Your task to perform on an android device: manage bookmarks in the chrome app Image 0: 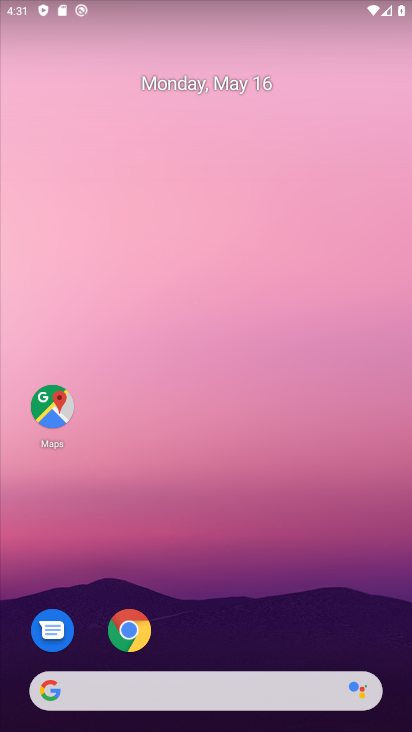
Step 0: press home button
Your task to perform on an android device: manage bookmarks in the chrome app Image 1: 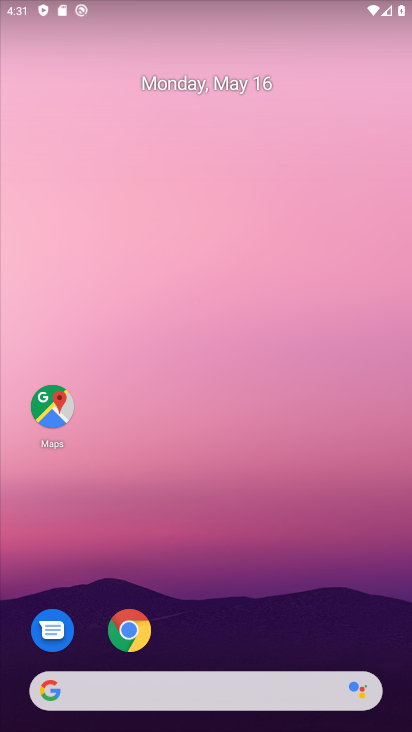
Step 1: click (111, 643)
Your task to perform on an android device: manage bookmarks in the chrome app Image 2: 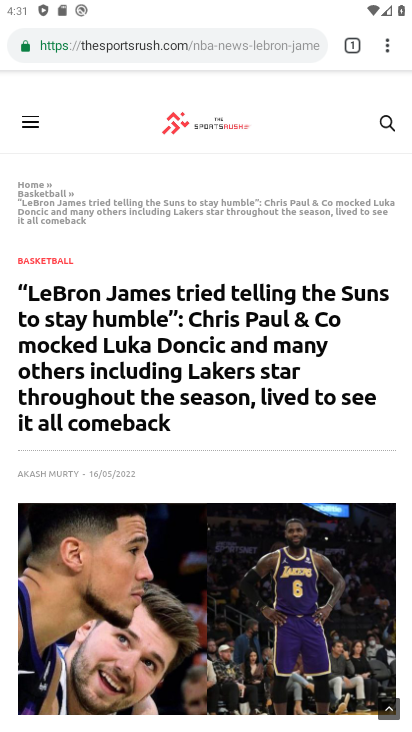
Step 2: task complete